Your task to perform on an android device: empty trash in google photos Image 0: 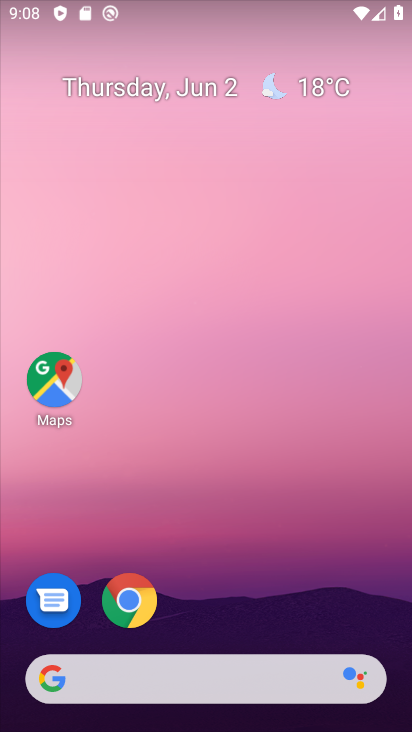
Step 0: drag from (208, 624) to (221, 63)
Your task to perform on an android device: empty trash in google photos Image 1: 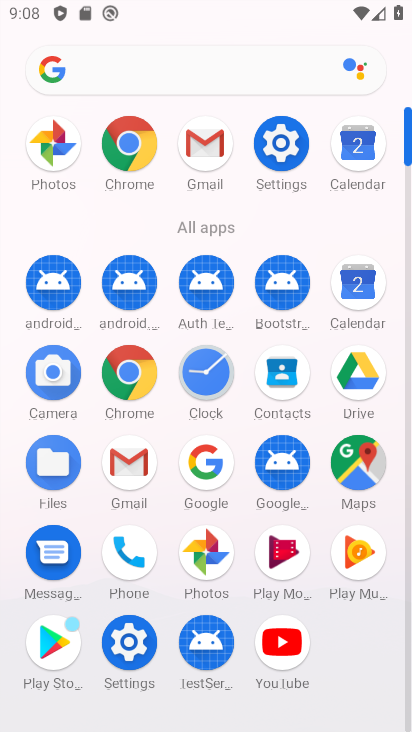
Step 1: click (54, 149)
Your task to perform on an android device: empty trash in google photos Image 2: 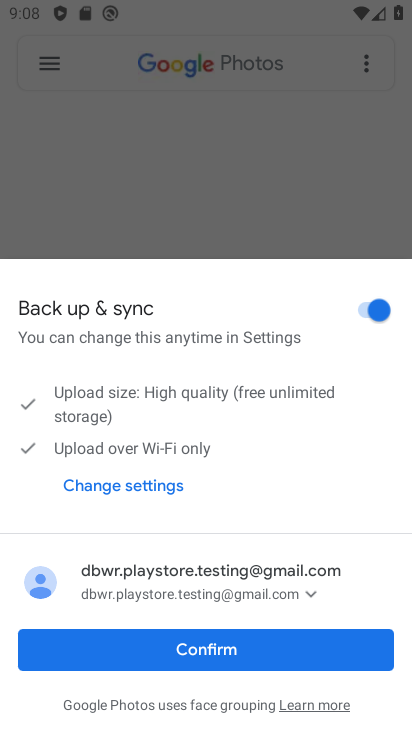
Step 2: click (189, 650)
Your task to perform on an android device: empty trash in google photos Image 3: 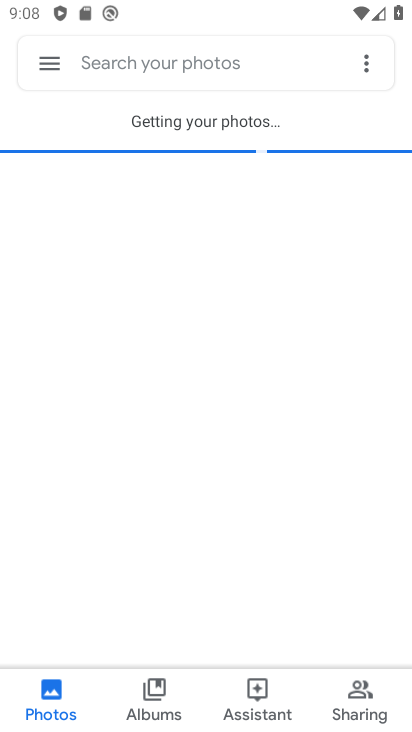
Step 3: click (46, 61)
Your task to perform on an android device: empty trash in google photos Image 4: 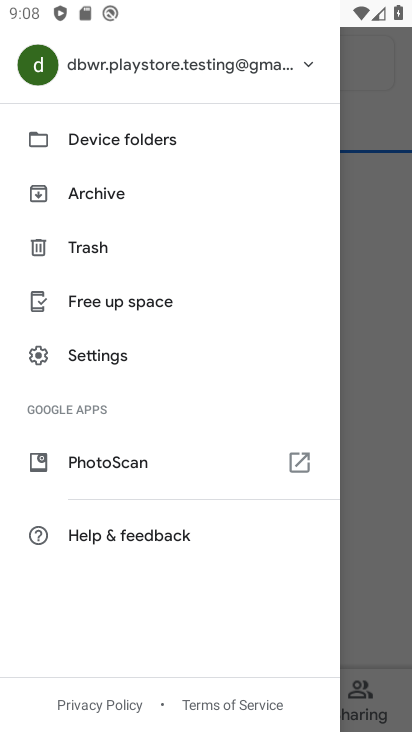
Step 4: click (98, 251)
Your task to perform on an android device: empty trash in google photos Image 5: 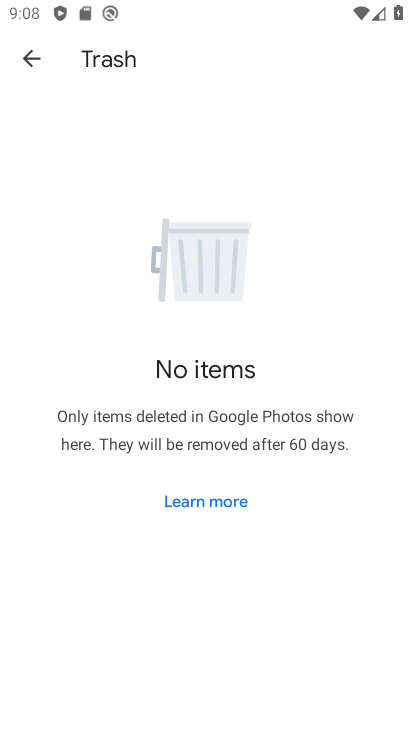
Step 5: task complete